Your task to perform on an android device: Find coffee shops on Maps Image 0: 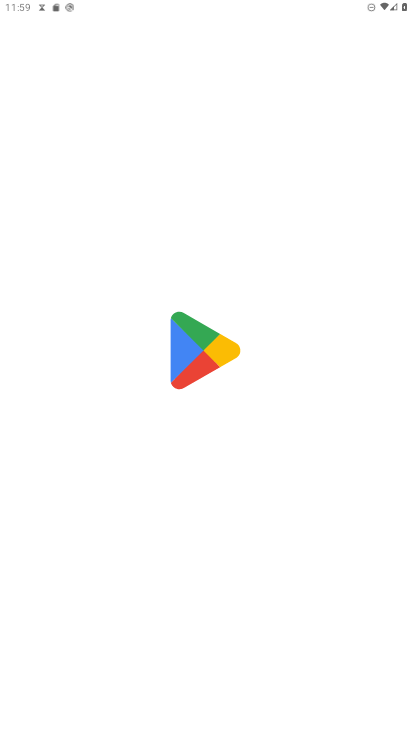
Step 0: drag from (281, 648) to (212, 328)
Your task to perform on an android device: Find coffee shops on Maps Image 1: 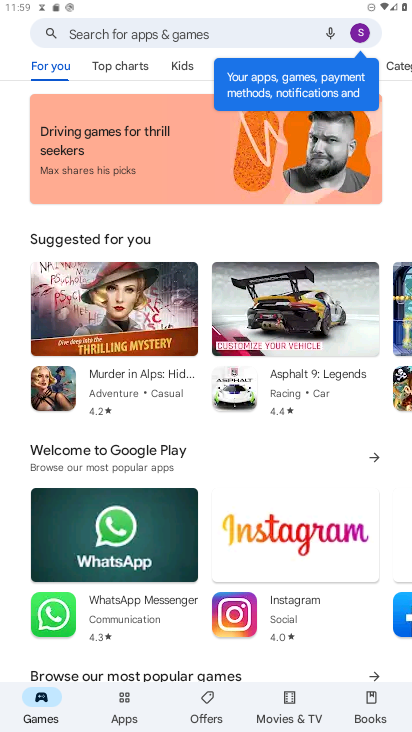
Step 1: press home button
Your task to perform on an android device: Find coffee shops on Maps Image 2: 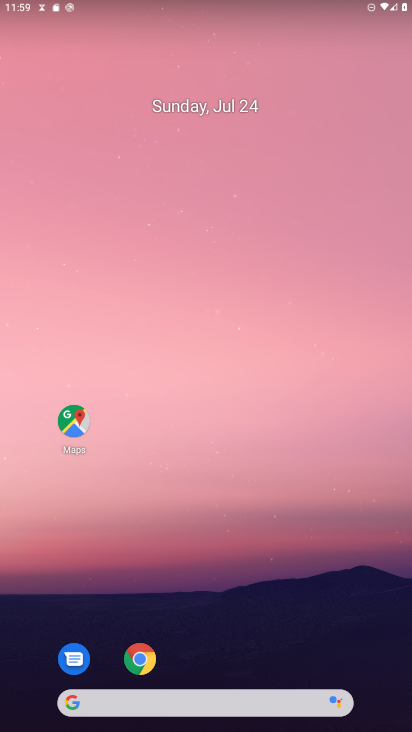
Step 2: click (71, 403)
Your task to perform on an android device: Find coffee shops on Maps Image 3: 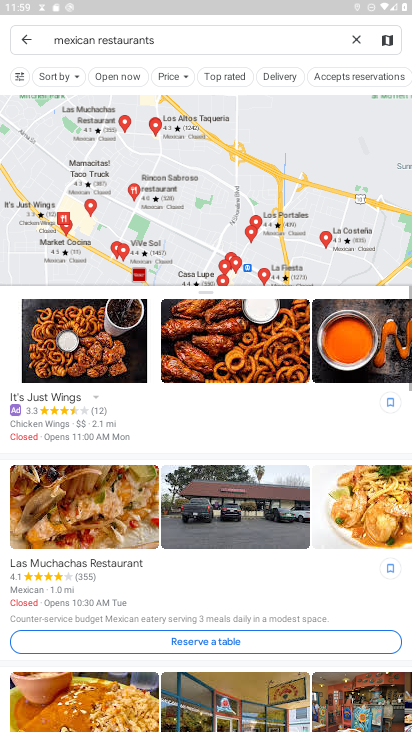
Step 3: click (358, 40)
Your task to perform on an android device: Find coffee shops on Maps Image 4: 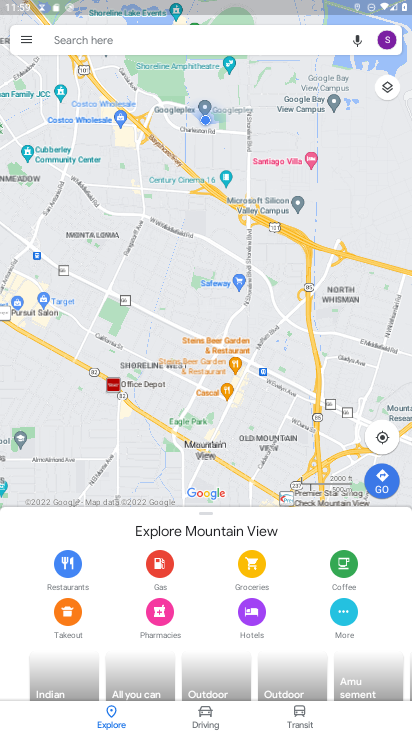
Step 4: click (225, 40)
Your task to perform on an android device: Find coffee shops on Maps Image 5: 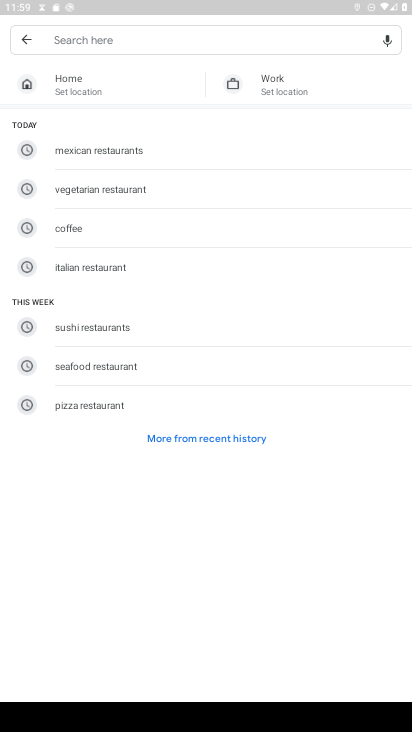
Step 5: click (107, 231)
Your task to perform on an android device: Find coffee shops on Maps Image 6: 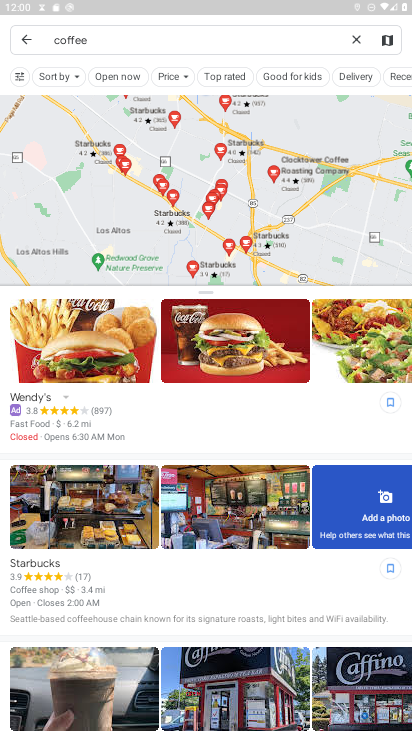
Step 6: task complete